Your task to perform on an android device: Open calendar and show me the second week of next month Image 0: 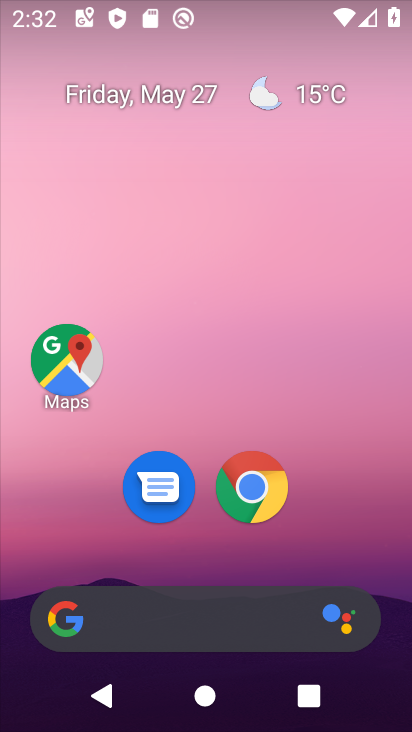
Step 0: click (178, 97)
Your task to perform on an android device: Open calendar and show me the second week of next month Image 1: 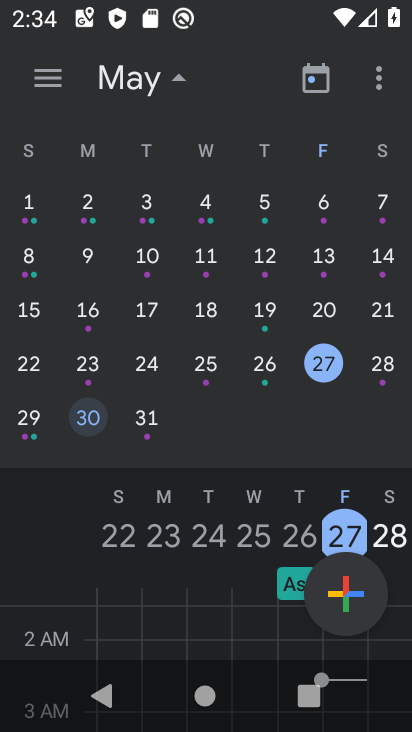
Step 1: task complete